Your task to perform on an android device: open app "Mercado Libre" (install if not already installed) Image 0: 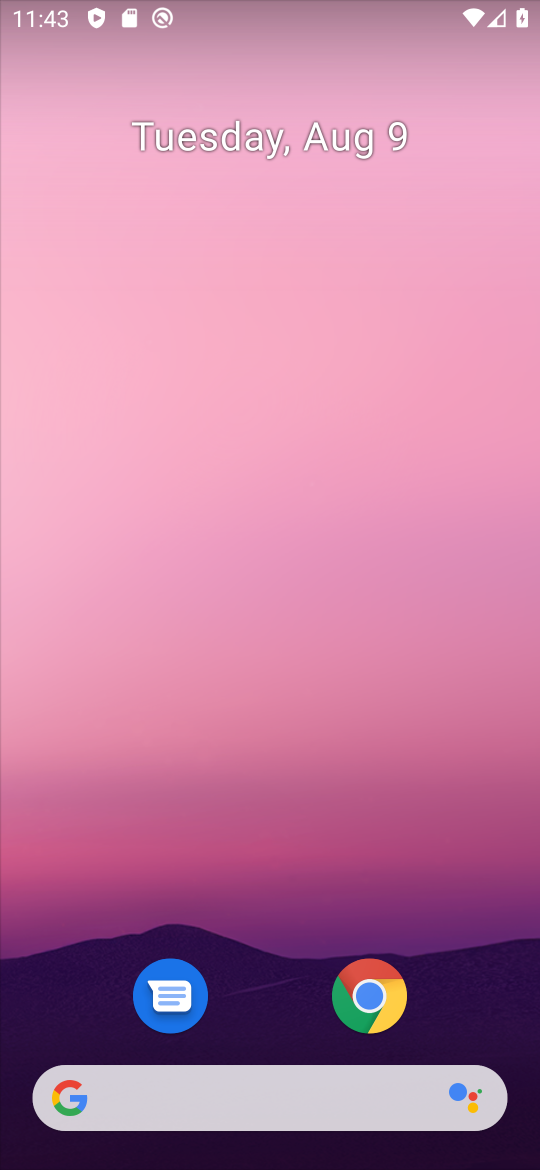
Step 0: drag from (292, 800) to (439, 227)
Your task to perform on an android device: open app "Mercado Libre" (install if not already installed) Image 1: 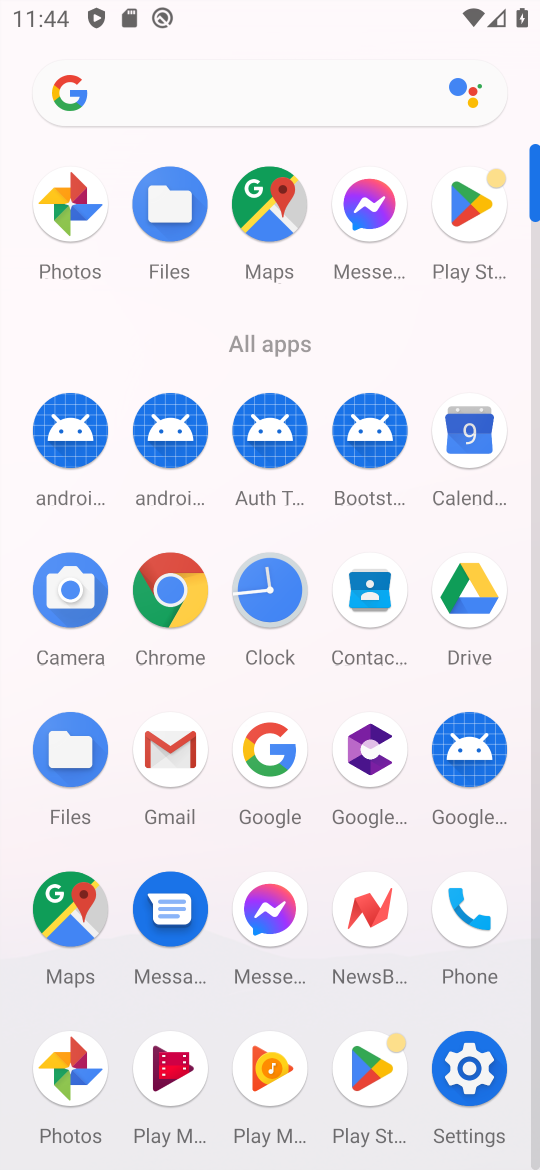
Step 1: click (466, 214)
Your task to perform on an android device: open app "Mercado Libre" (install if not already installed) Image 2: 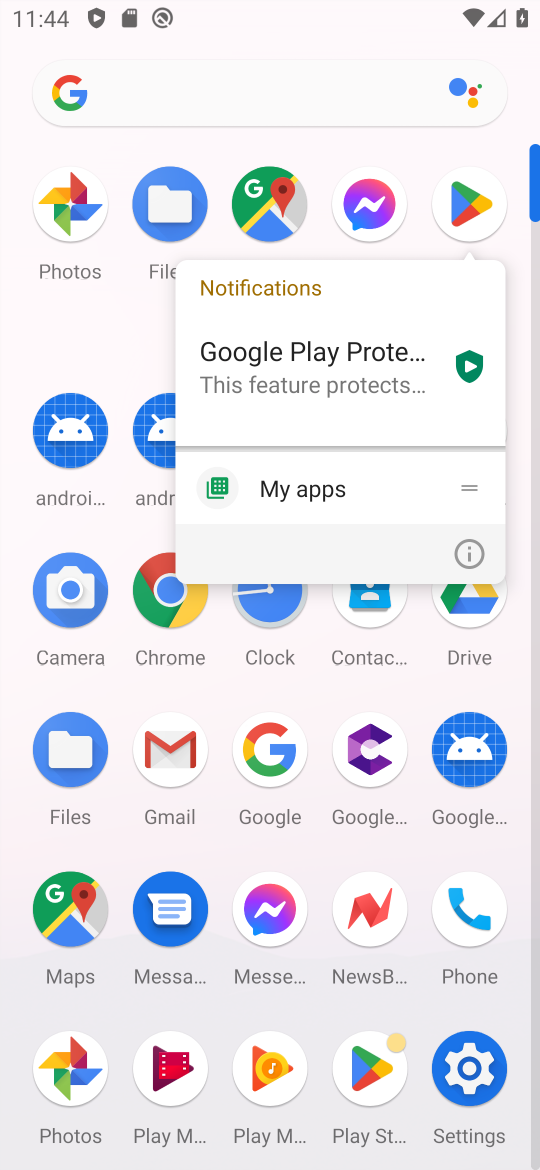
Step 2: click (464, 213)
Your task to perform on an android device: open app "Mercado Libre" (install if not already installed) Image 3: 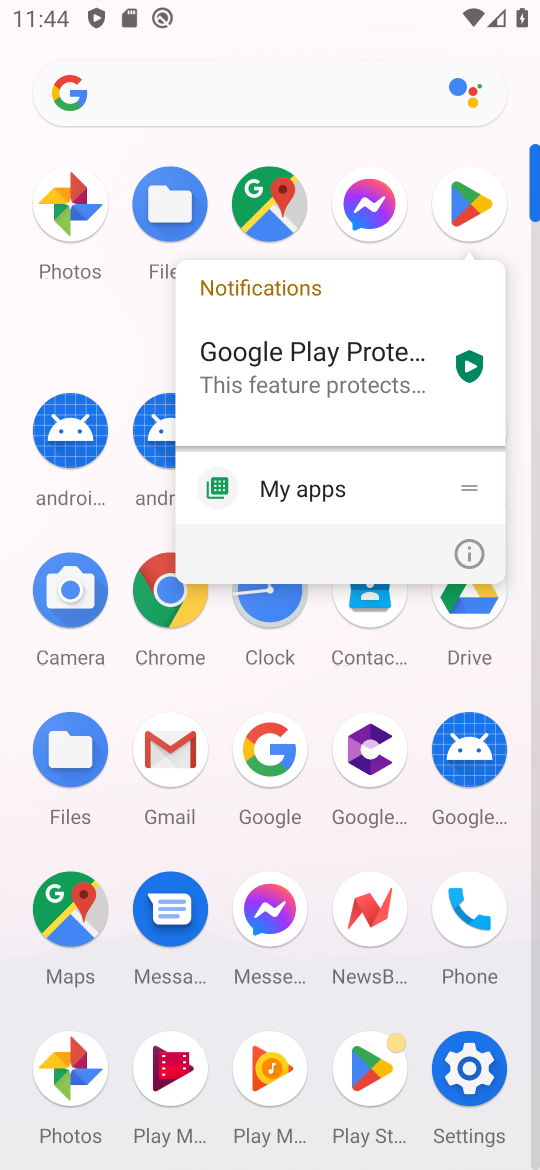
Step 3: click (464, 213)
Your task to perform on an android device: open app "Mercado Libre" (install if not already installed) Image 4: 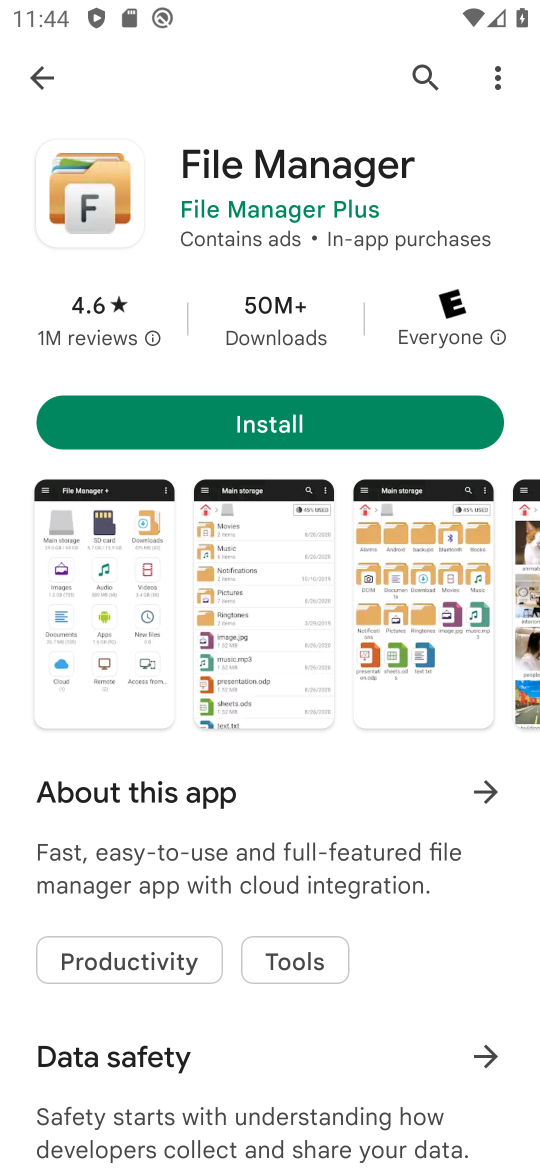
Step 4: click (36, 79)
Your task to perform on an android device: open app "Mercado Libre" (install if not already installed) Image 5: 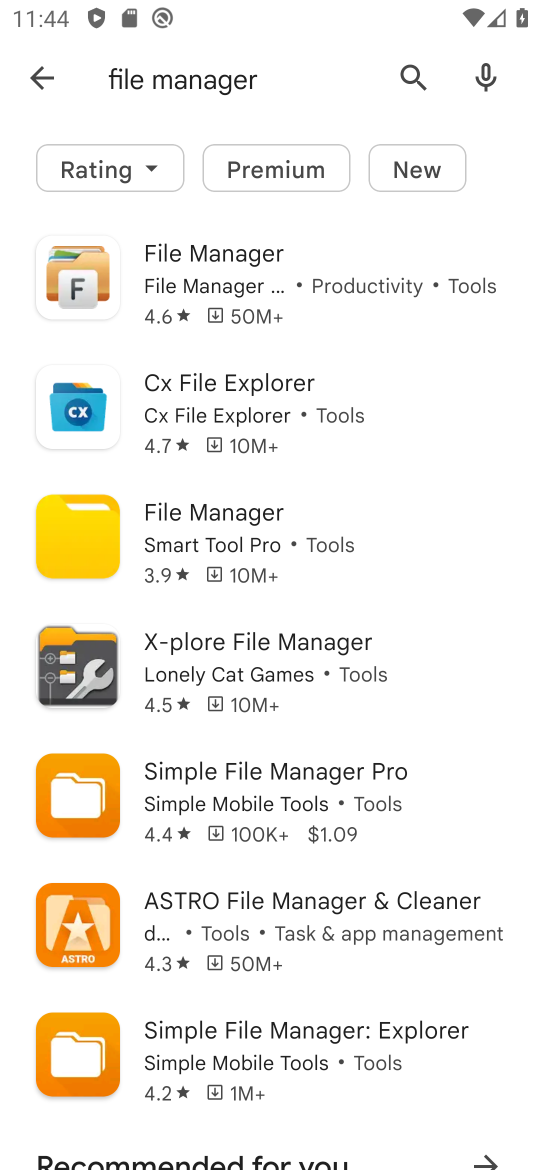
Step 5: click (49, 79)
Your task to perform on an android device: open app "Mercado Libre" (install if not already installed) Image 6: 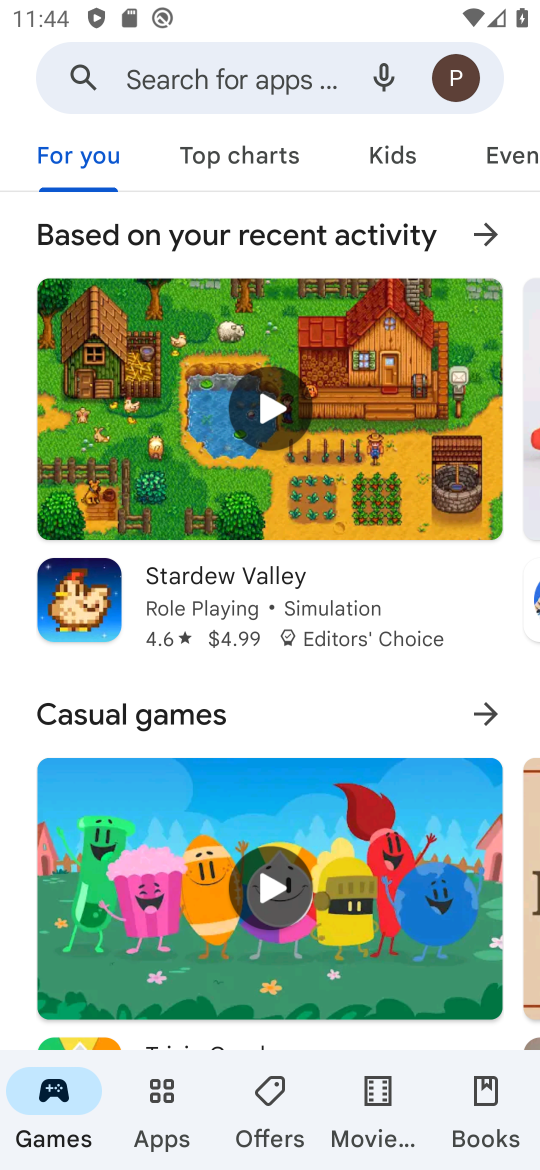
Step 6: click (220, 75)
Your task to perform on an android device: open app "Mercado Libre" (install if not already installed) Image 7: 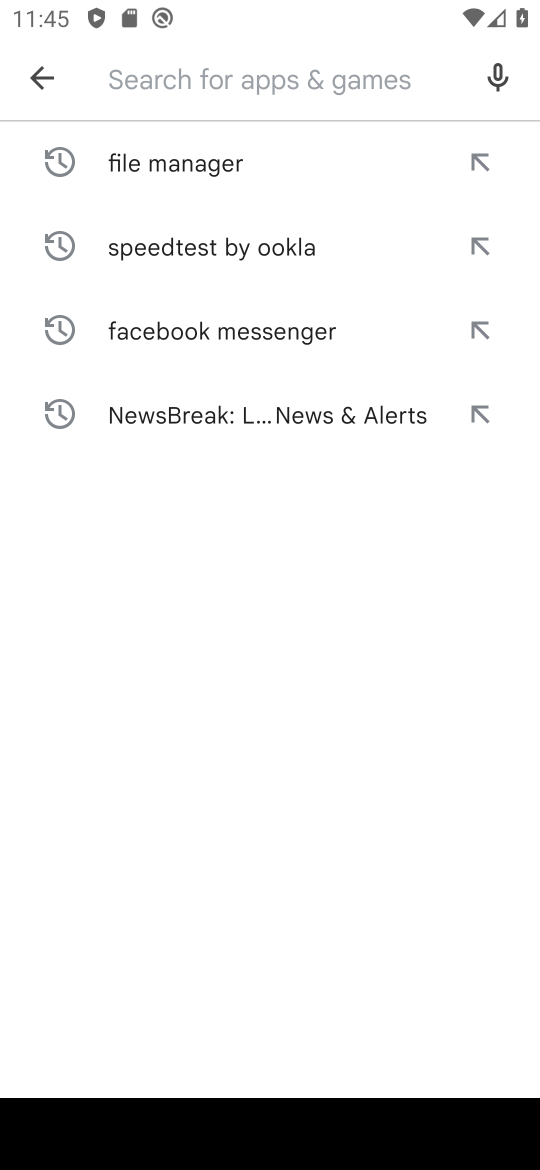
Step 7: type "Mercado Libre"
Your task to perform on an android device: open app "Mercado Libre" (install if not already installed) Image 8: 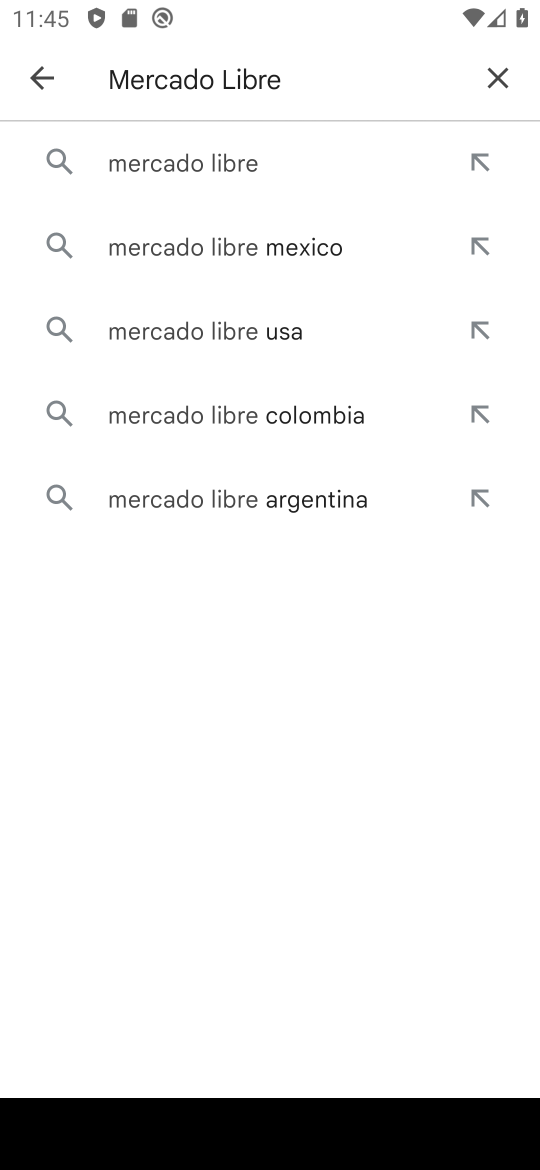
Step 8: click (207, 167)
Your task to perform on an android device: open app "Mercado Libre" (install if not already installed) Image 9: 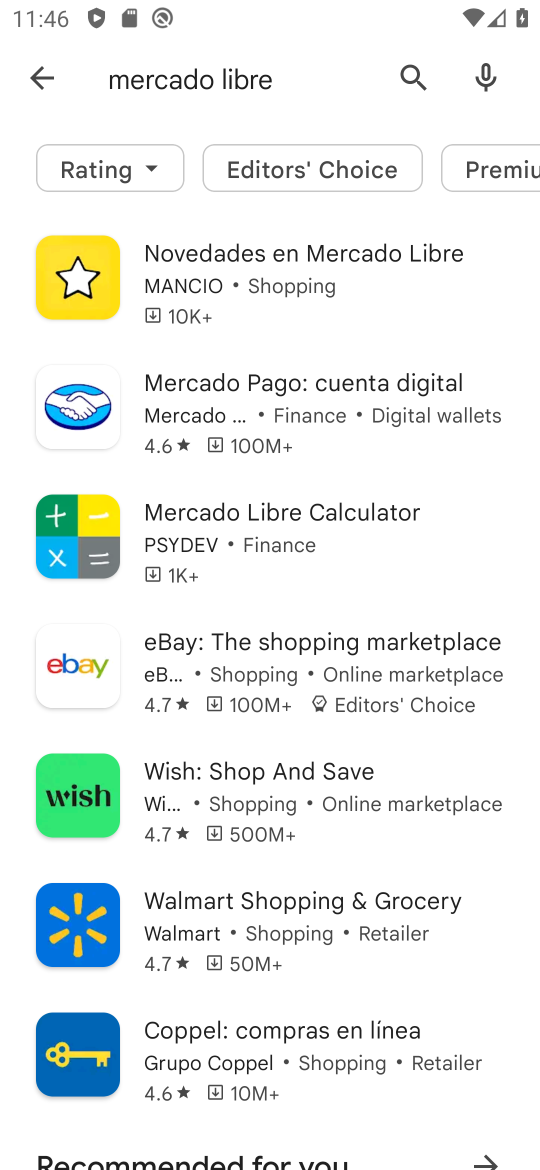
Step 9: task complete